Your task to perform on an android device: Turn on the flashlight Image 0: 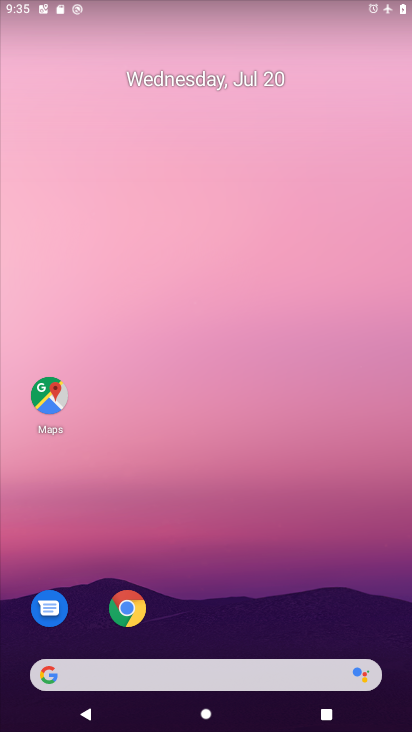
Step 0: drag from (169, 614) to (222, 116)
Your task to perform on an android device: Turn on the flashlight Image 1: 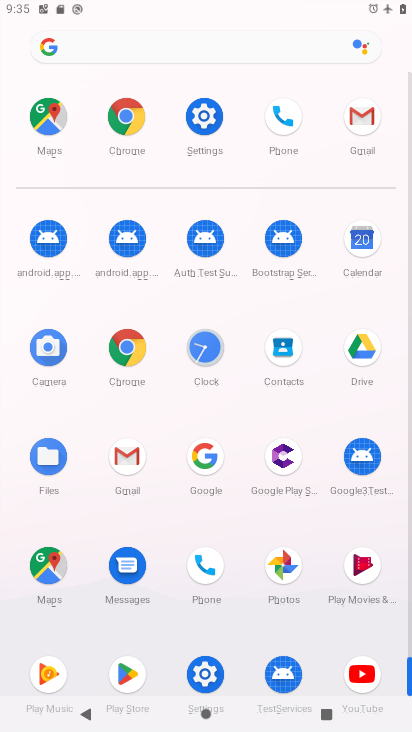
Step 1: click (217, 103)
Your task to perform on an android device: Turn on the flashlight Image 2: 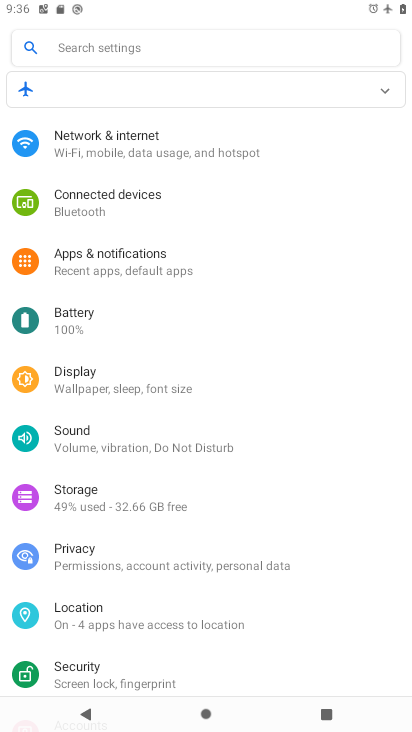
Step 2: task complete